Your task to perform on an android device: turn off sleep mode Image 0: 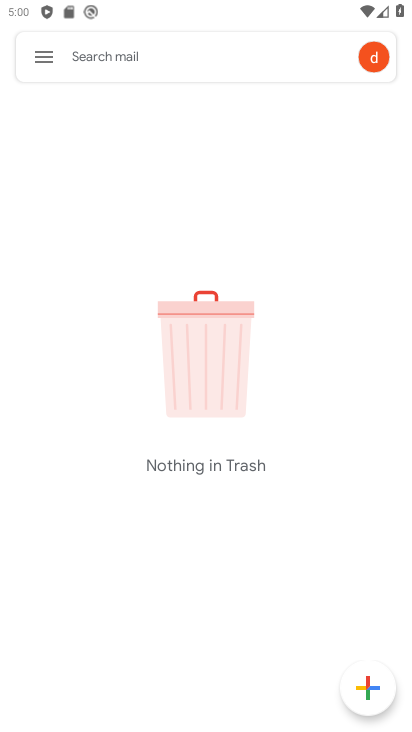
Step 0: press home button
Your task to perform on an android device: turn off sleep mode Image 1: 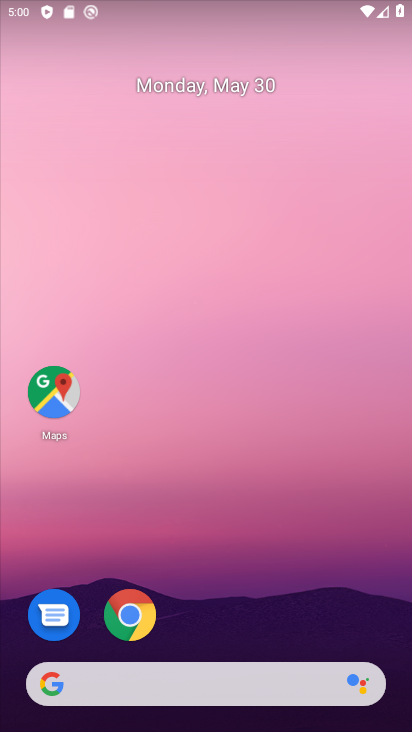
Step 1: drag from (190, 653) to (195, 7)
Your task to perform on an android device: turn off sleep mode Image 2: 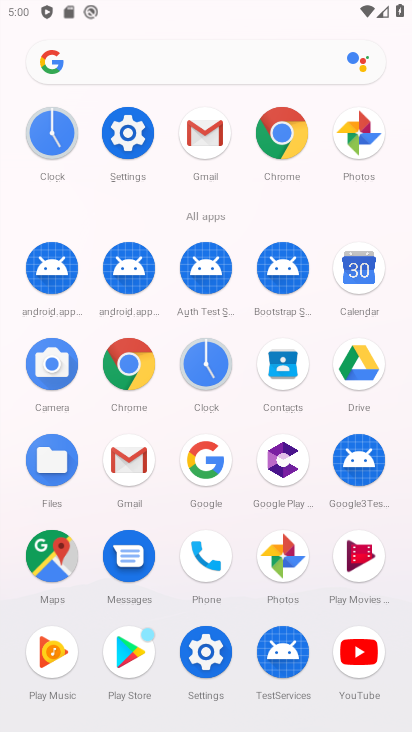
Step 2: click (115, 133)
Your task to perform on an android device: turn off sleep mode Image 3: 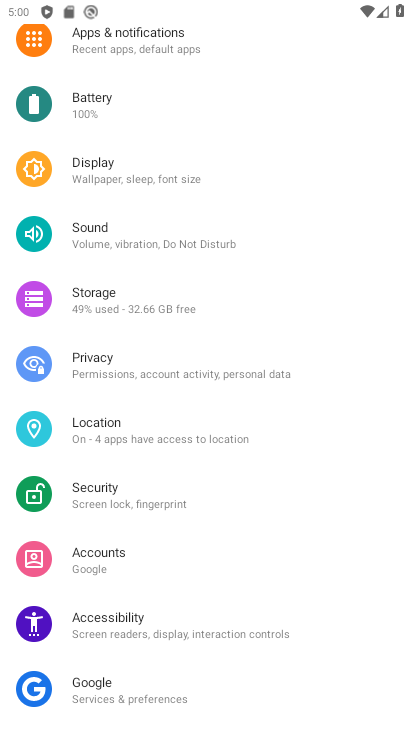
Step 3: task complete